Your task to perform on an android device: turn off sleep mode Image 0: 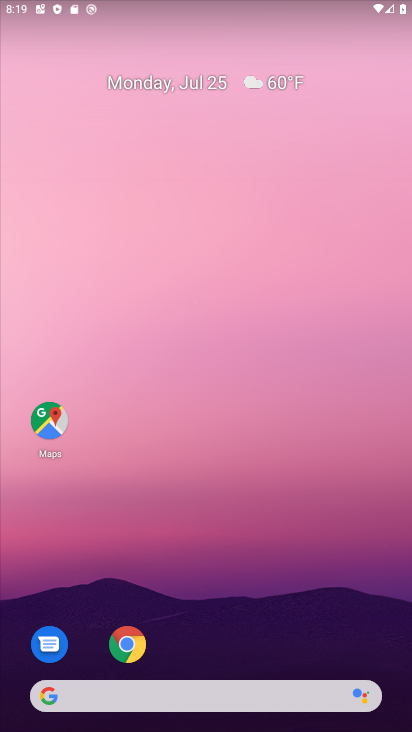
Step 0: drag from (304, 571) to (290, 300)
Your task to perform on an android device: turn off sleep mode Image 1: 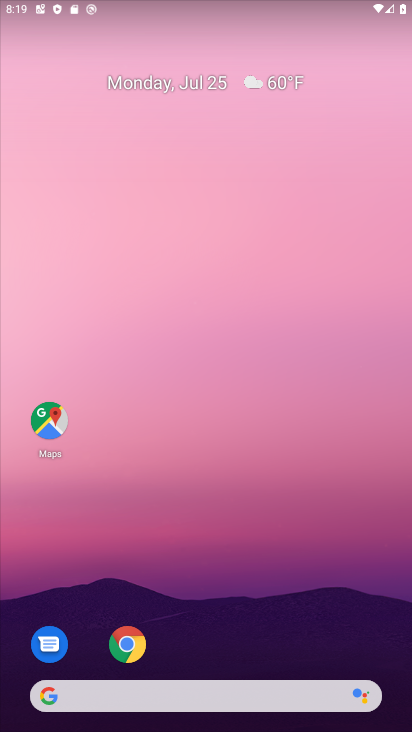
Step 1: drag from (286, 567) to (273, 329)
Your task to perform on an android device: turn off sleep mode Image 2: 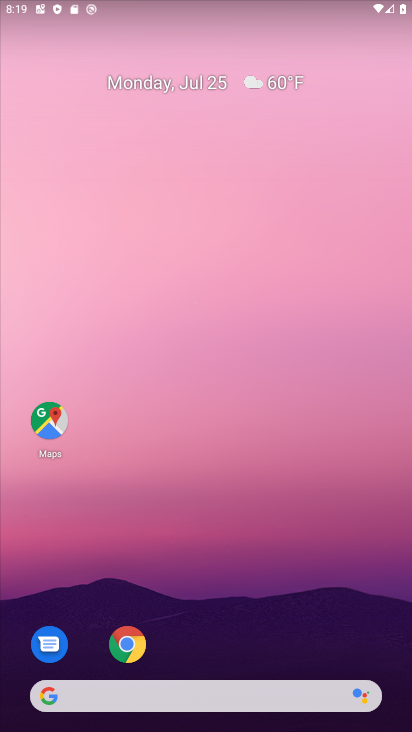
Step 2: drag from (256, 512) to (247, 185)
Your task to perform on an android device: turn off sleep mode Image 3: 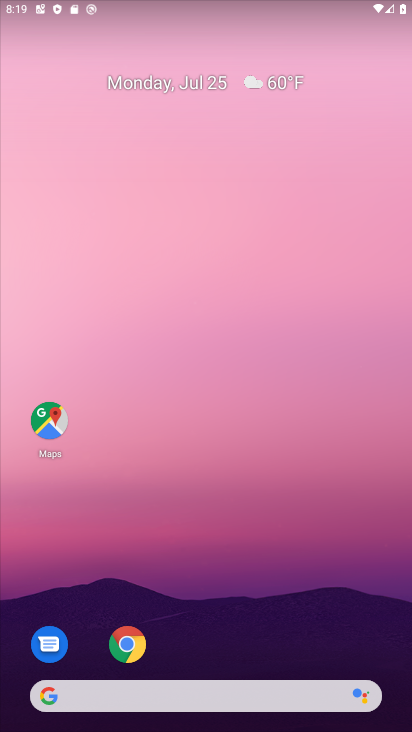
Step 3: drag from (289, 545) to (264, 249)
Your task to perform on an android device: turn off sleep mode Image 4: 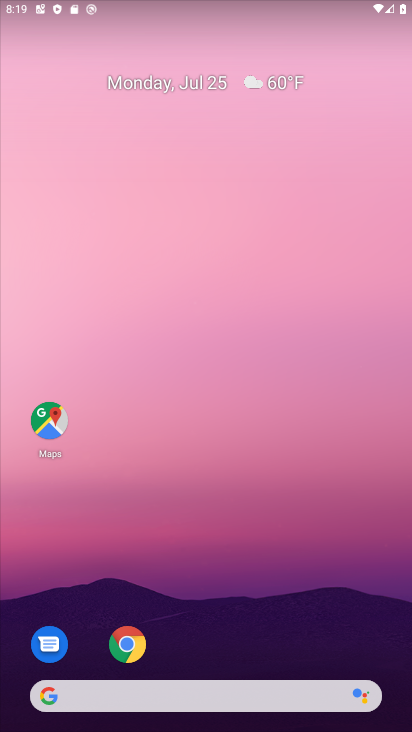
Step 4: drag from (318, 509) to (265, 105)
Your task to perform on an android device: turn off sleep mode Image 5: 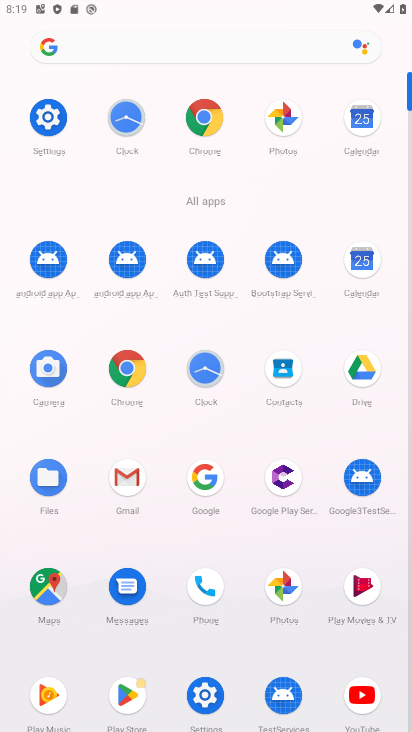
Step 5: click (205, 689)
Your task to perform on an android device: turn off sleep mode Image 6: 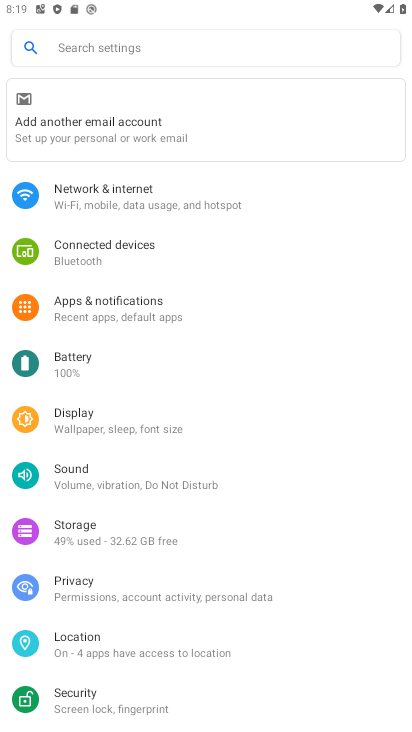
Step 6: task complete